Your task to perform on an android device: Open calendar and show me the third week of next month Image 0: 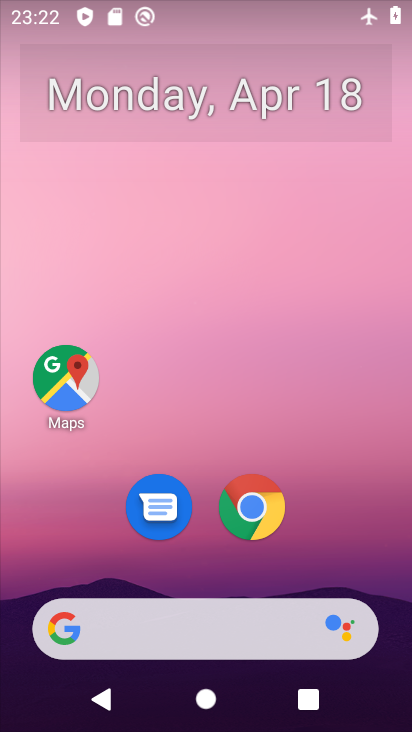
Step 0: drag from (314, 488) to (335, 105)
Your task to perform on an android device: Open calendar and show me the third week of next month Image 1: 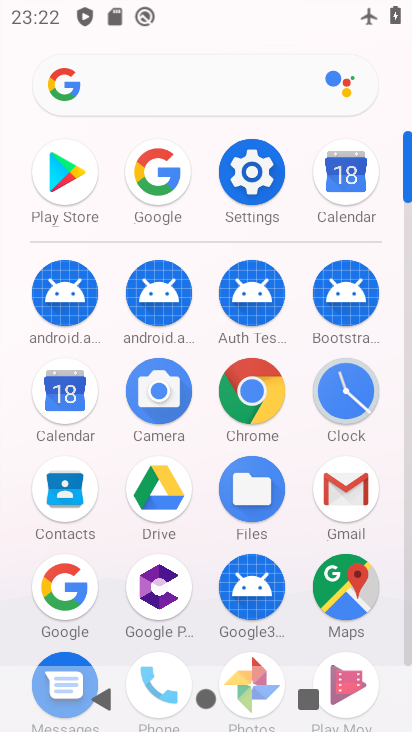
Step 1: click (71, 390)
Your task to perform on an android device: Open calendar and show me the third week of next month Image 2: 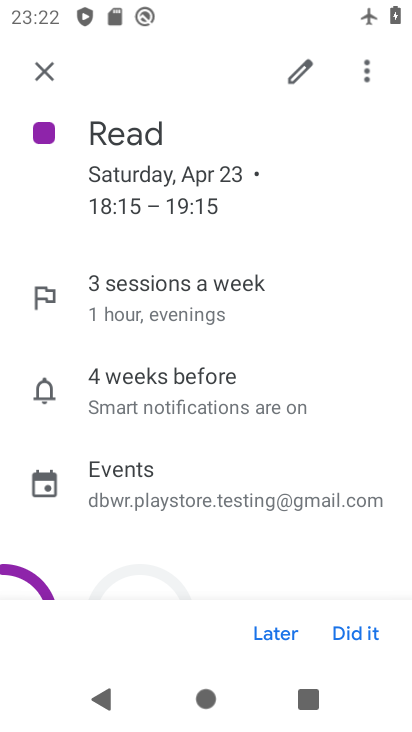
Step 2: click (34, 62)
Your task to perform on an android device: Open calendar and show me the third week of next month Image 3: 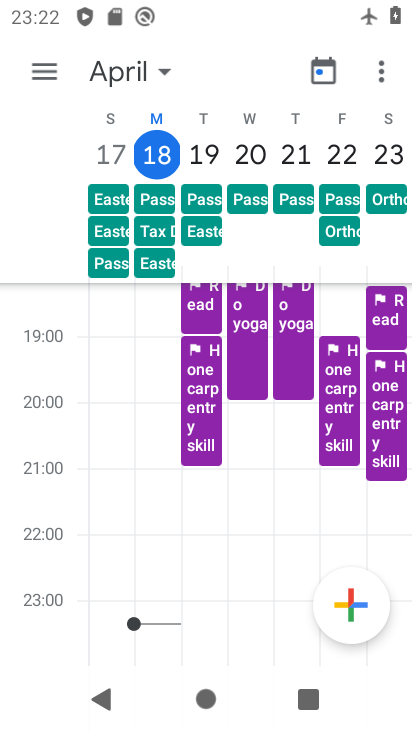
Step 3: task complete